Your task to perform on an android device: change the clock display to analog Image 0: 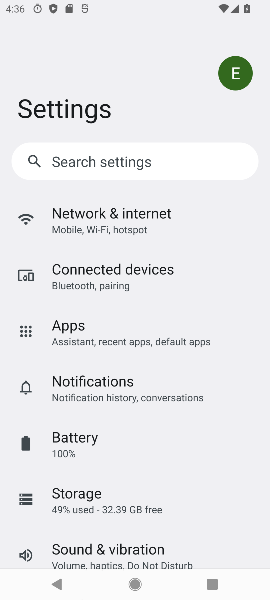
Step 0: press back button
Your task to perform on an android device: change the clock display to analog Image 1: 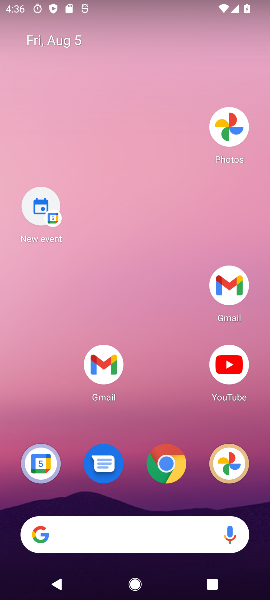
Step 1: drag from (167, 454) to (167, 74)
Your task to perform on an android device: change the clock display to analog Image 2: 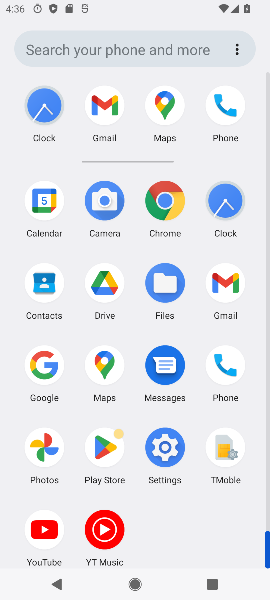
Step 2: click (221, 197)
Your task to perform on an android device: change the clock display to analog Image 3: 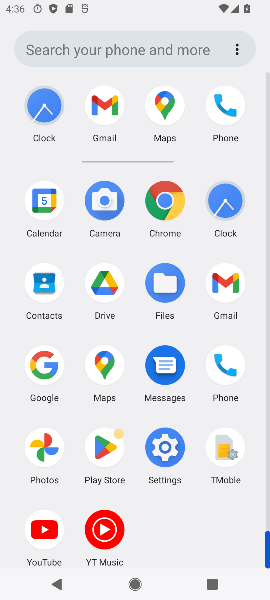
Step 3: click (221, 197)
Your task to perform on an android device: change the clock display to analog Image 4: 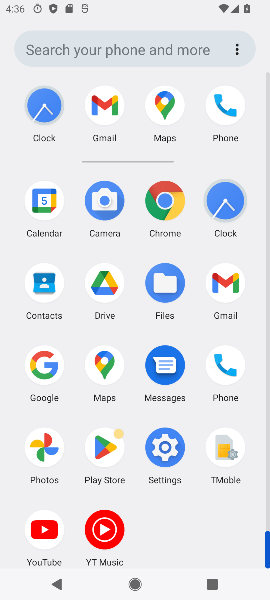
Step 4: click (222, 197)
Your task to perform on an android device: change the clock display to analog Image 5: 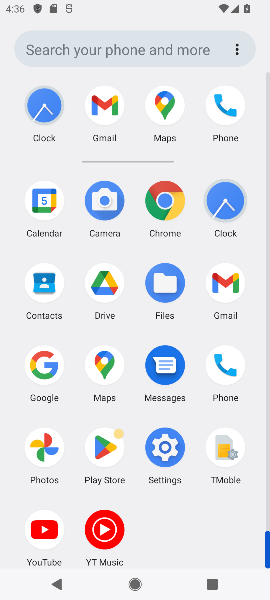
Step 5: click (223, 197)
Your task to perform on an android device: change the clock display to analog Image 6: 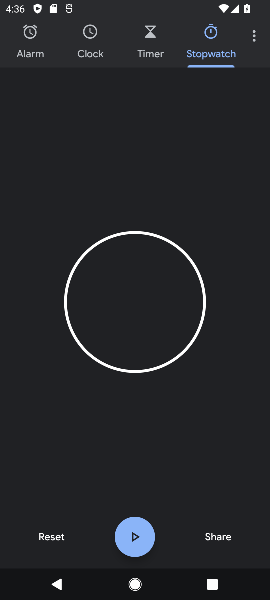
Step 6: click (223, 198)
Your task to perform on an android device: change the clock display to analog Image 7: 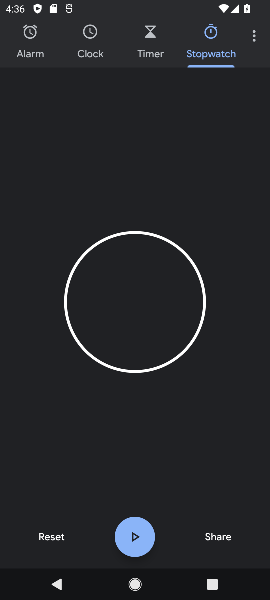
Step 7: click (223, 198)
Your task to perform on an android device: change the clock display to analog Image 8: 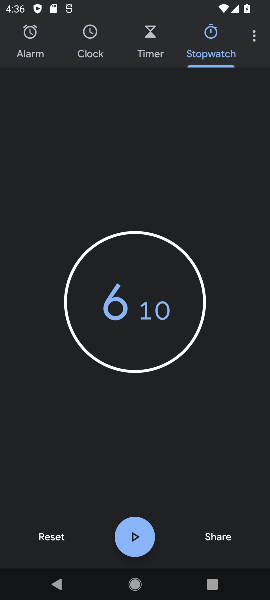
Step 8: click (250, 38)
Your task to perform on an android device: change the clock display to analog Image 9: 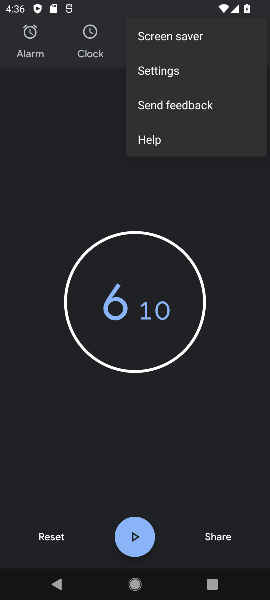
Step 9: click (166, 68)
Your task to perform on an android device: change the clock display to analog Image 10: 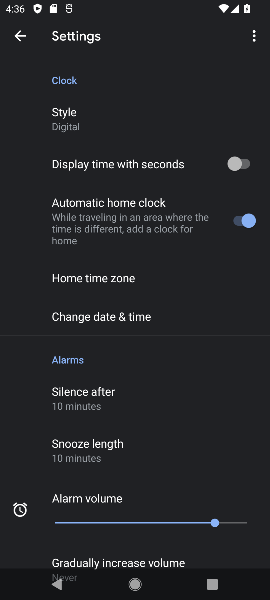
Step 10: click (83, 120)
Your task to perform on an android device: change the clock display to analog Image 11: 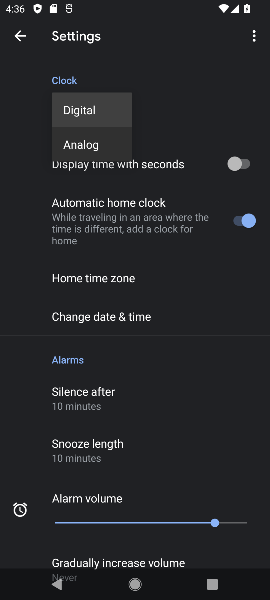
Step 11: click (88, 144)
Your task to perform on an android device: change the clock display to analog Image 12: 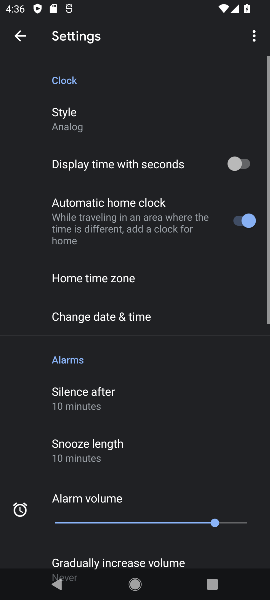
Step 12: task complete